Your task to perform on an android device: turn on airplane mode Image 0: 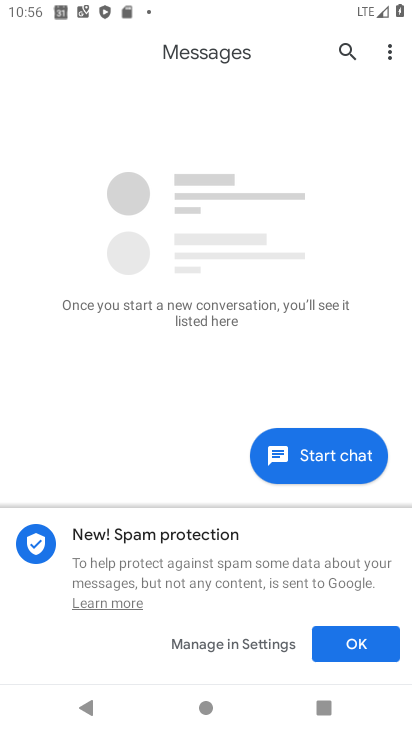
Step 0: press home button
Your task to perform on an android device: turn on airplane mode Image 1: 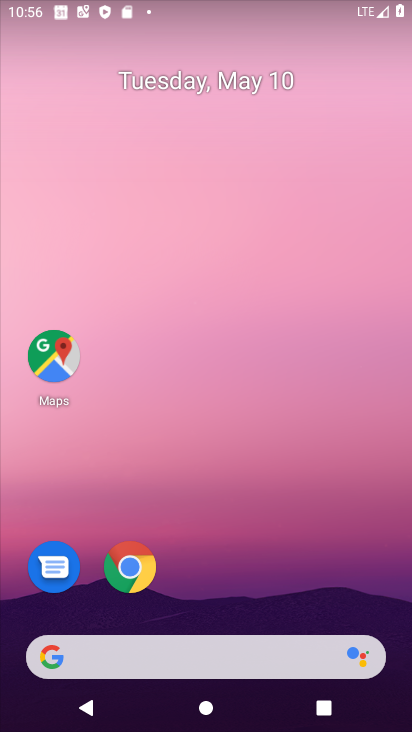
Step 1: press home button
Your task to perform on an android device: turn on airplane mode Image 2: 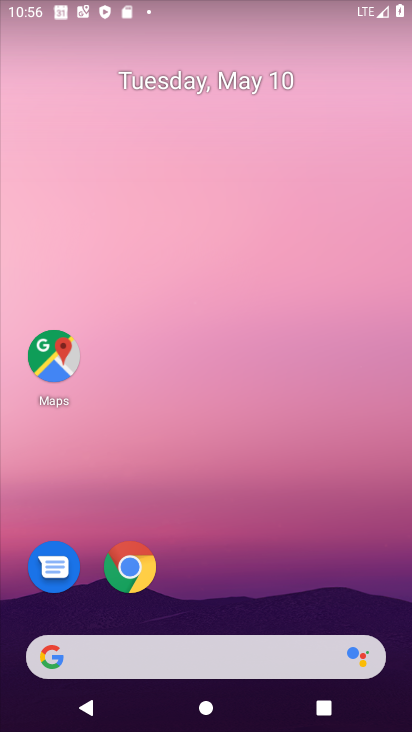
Step 2: drag from (7, 399) to (316, 179)
Your task to perform on an android device: turn on airplane mode Image 3: 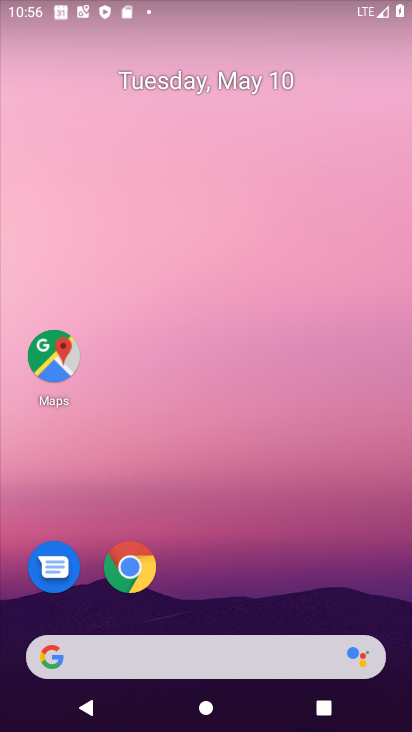
Step 3: drag from (66, 665) to (314, 197)
Your task to perform on an android device: turn on airplane mode Image 4: 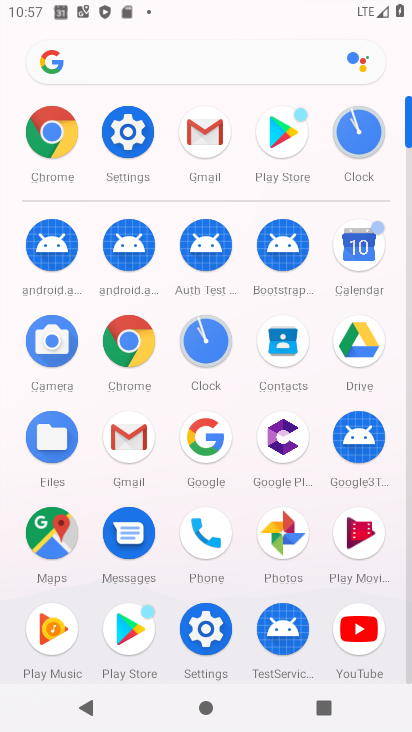
Step 4: click (121, 151)
Your task to perform on an android device: turn on airplane mode Image 5: 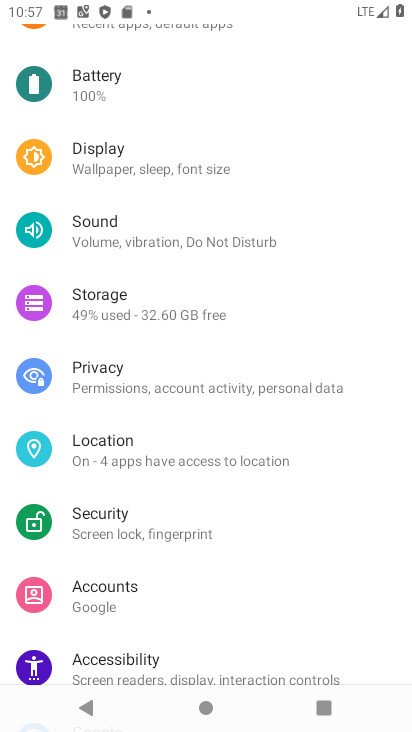
Step 5: drag from (159, 111) to (131, 689)
Your task to perform on an android device: turn on airplane mode Image 6: 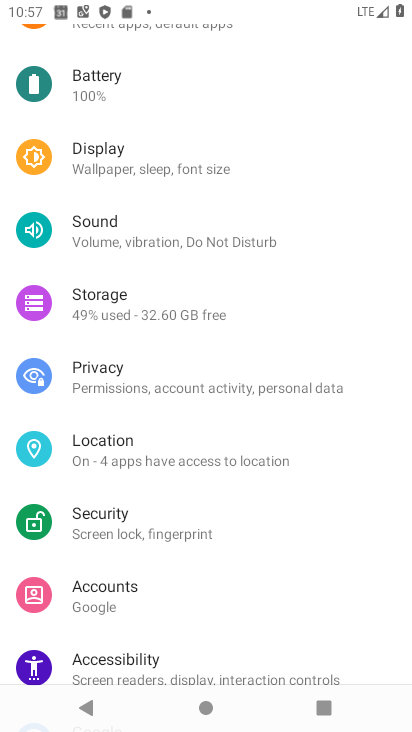
Step 6: drag from (202, 117) to (165, 688)
Your task to perform on an android device: turn on airplane mode Image 7: 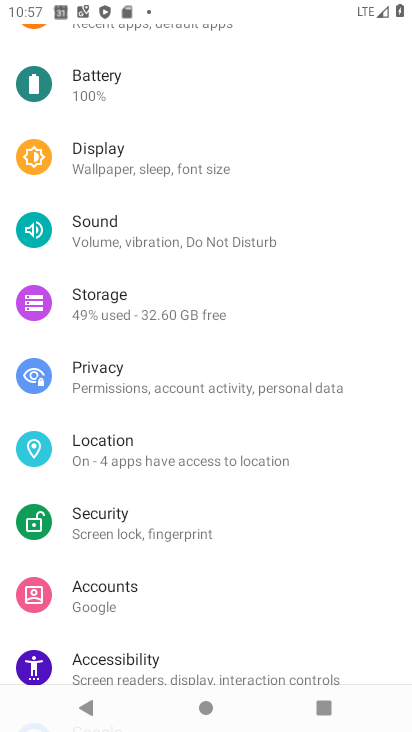
Step 7: drag from (168, 162) to (156, 622)
Your task to perform on an android device: turn on airplane mode Image 8: 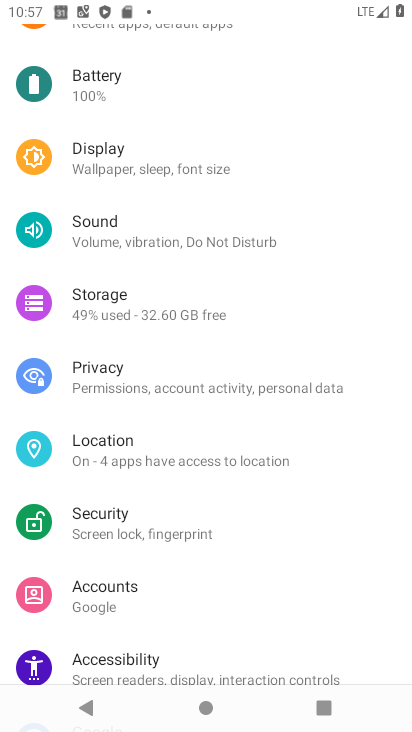
Step 8: drag from (168, 94) to (157, 587)
Your task to perform on an android device: turn on airplane mode Image 9: 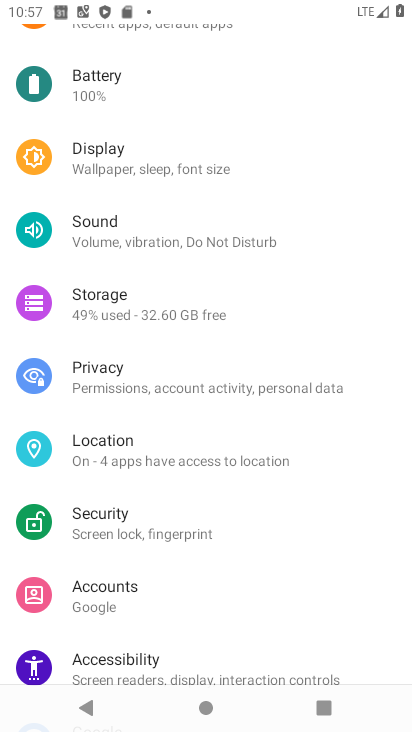
Step 9: drag from (225, 127) to (190, 547)
Your task to perform on an android device: turn on airplane mode Image 10: 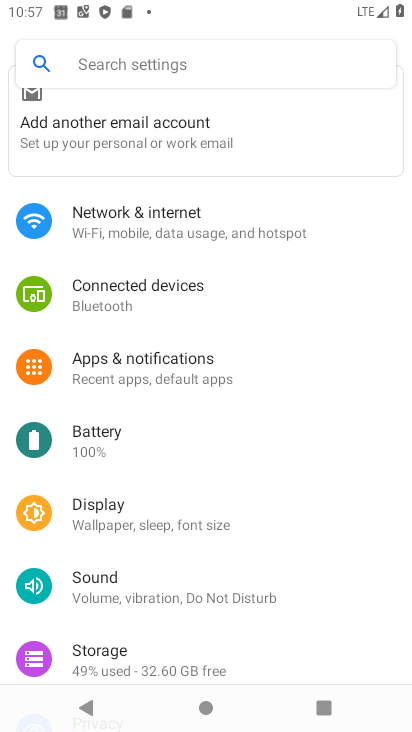
Step 10: click (79, 239)
Your task to perform on an android device: turn on airplane mode Image 11: 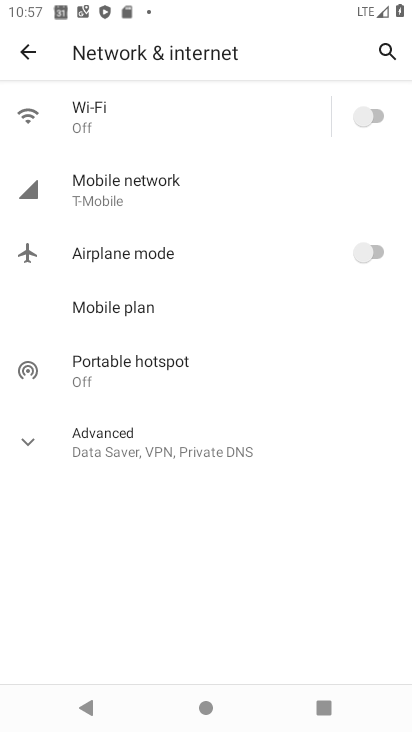
Step 11: click (365, 255)
Your task to perform on an android device: turn on airplane mode Image 12: 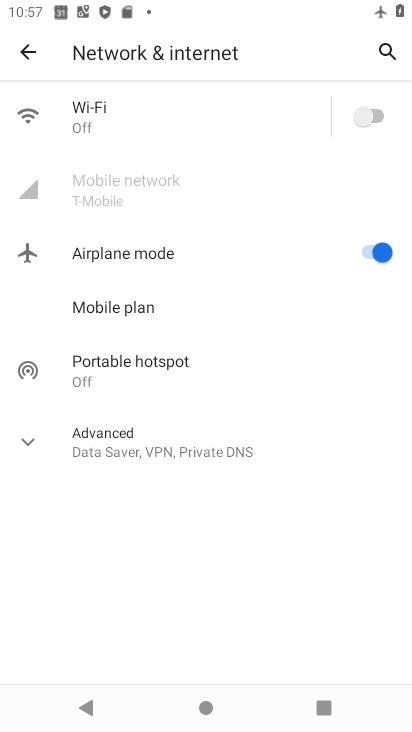
Step 12: task complete